Your task to perform on an android device: star an email in the gmail app Image 0: 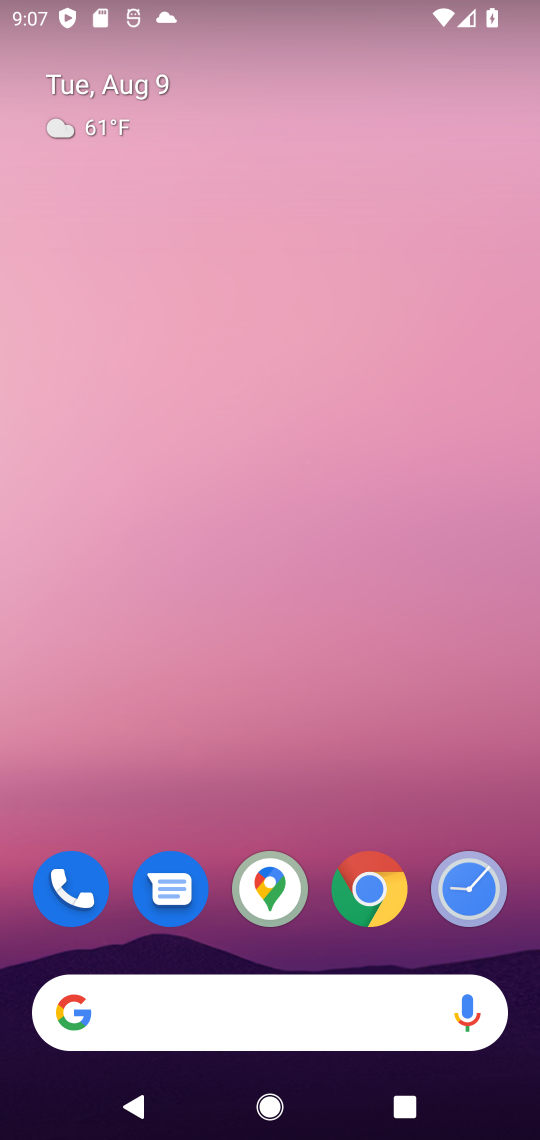
Step 0: drag from (229, 991) to (485, 78)
Your task to perform on an android device: star an email in the gmail app Image 1: 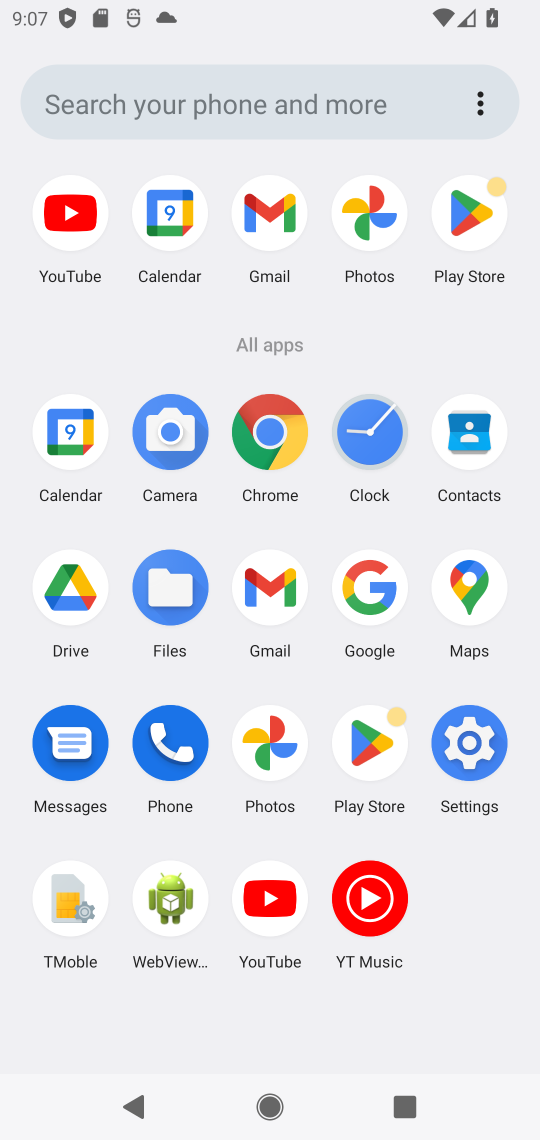
Step 1: click (284, 218)
Your task to perform on an android device: star an email in the gmail app Image 2: 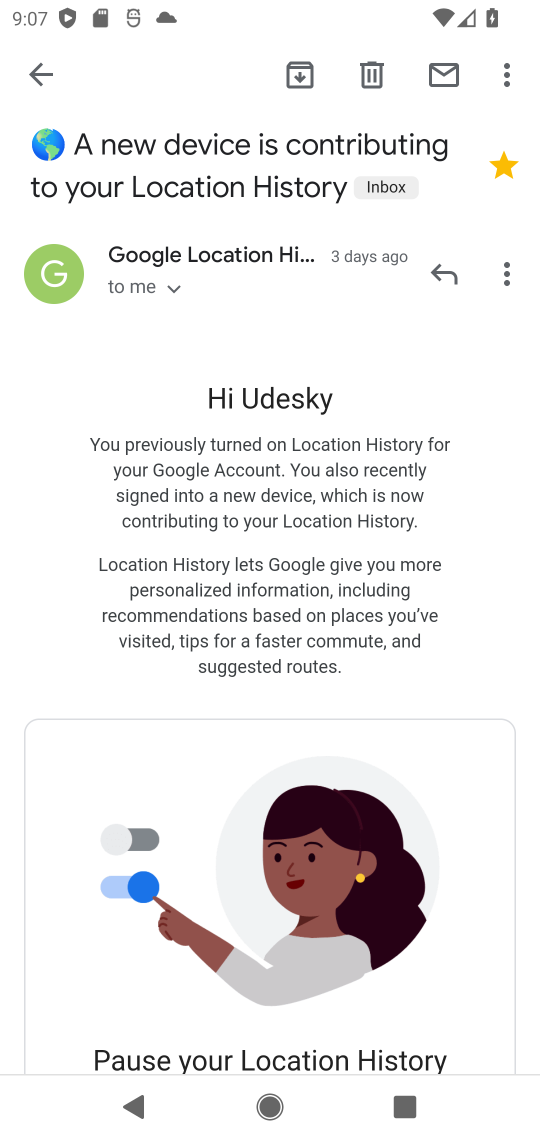
Step 2: click (58, 74)
Your task to perform on an android device: star an email in the gmail app Image 3: 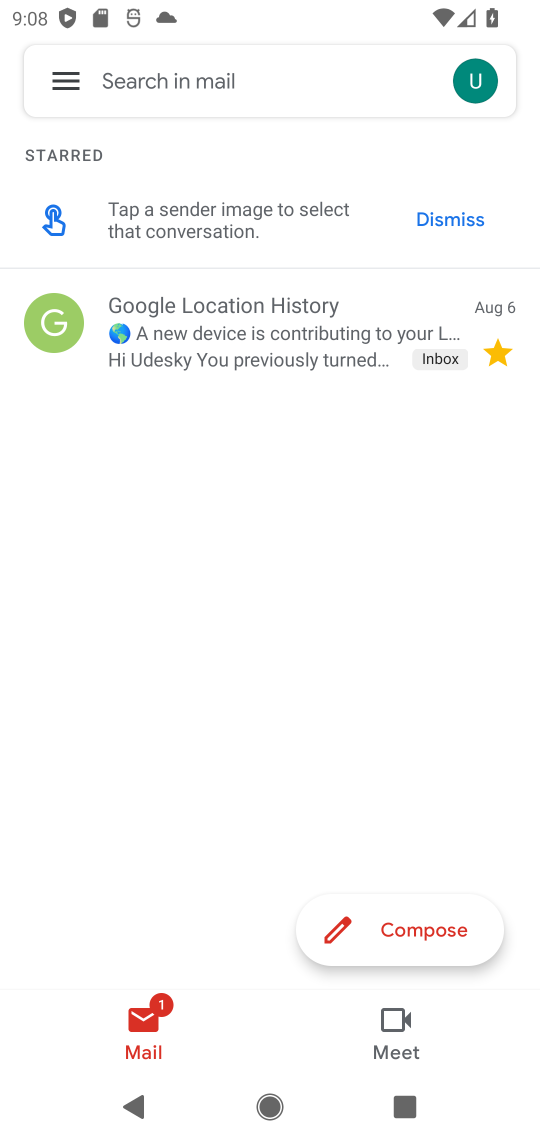
Step 3: click (58, 65)
Your task to perform on an android device: star an email in the gmail app Image 4: 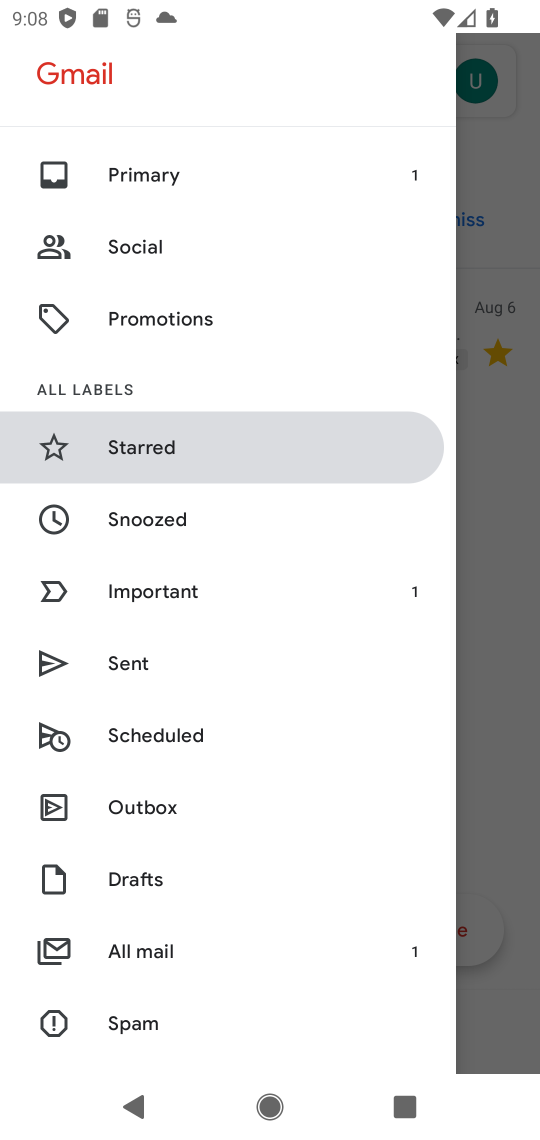
Step 4: click (126, 956)
Your task to perform on an android device: star an email in the gmail app Image 5: 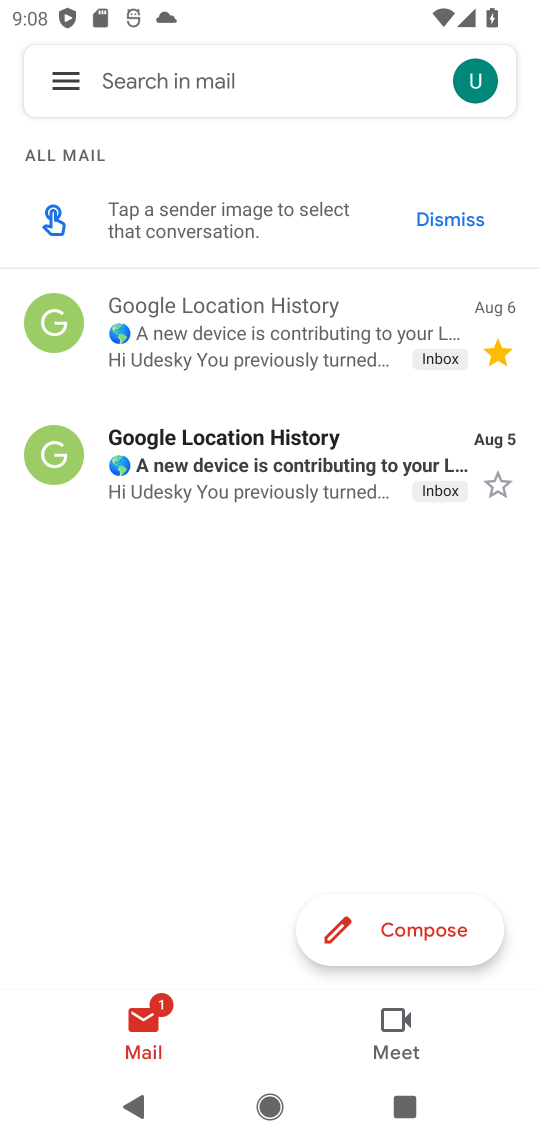
Step 5: click (516, 482)
Your task to perform on an android device: star an email in the gmail app Image 6: 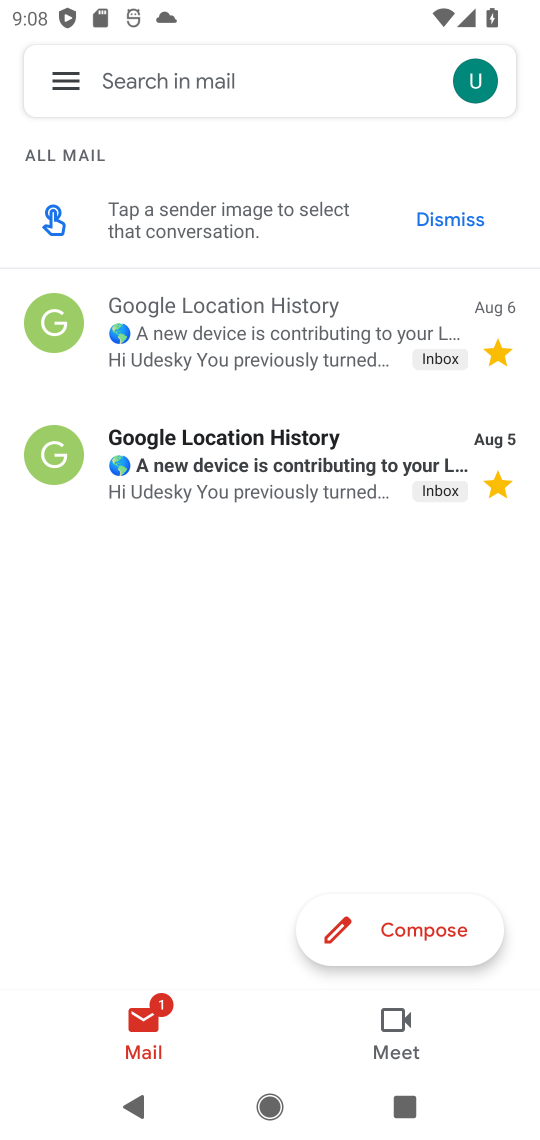
Step 6: task complete